Your task to perform on an android device: change the clock display to show seconds Image 0: 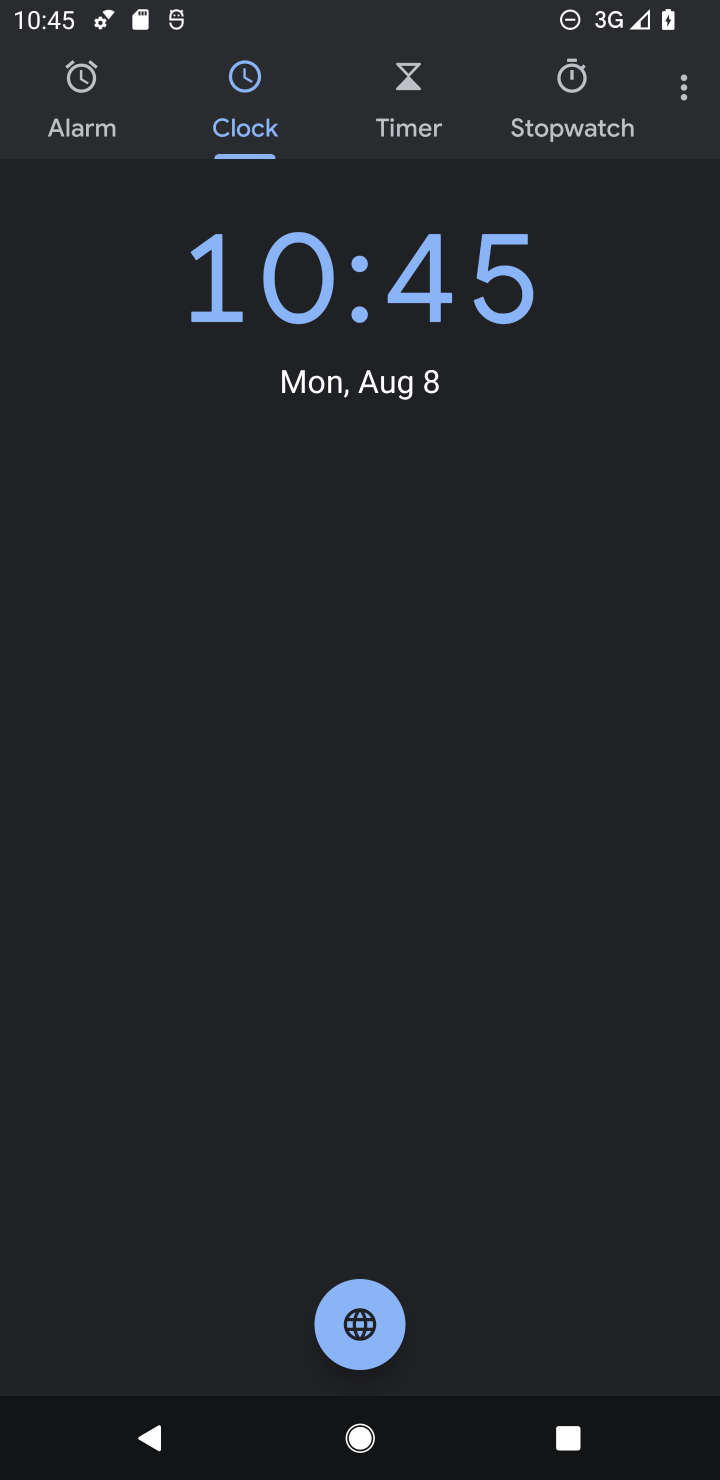
Step 0: click (678, 96)
Your task to perform on an android device: change the clock display to show seconds Image 1: 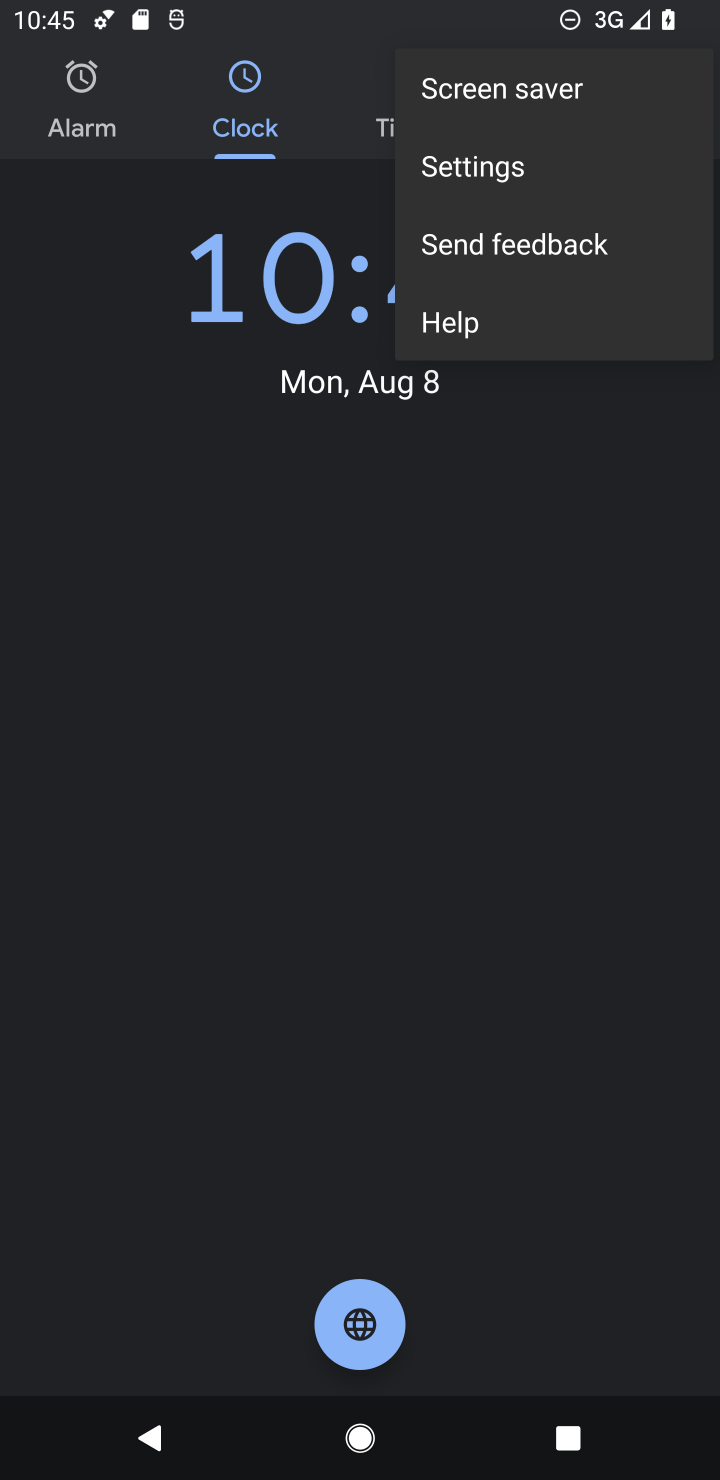
Step 1: click (485, 165)
Your task to perform on an android device: change the clock display to show seconds Image 2: 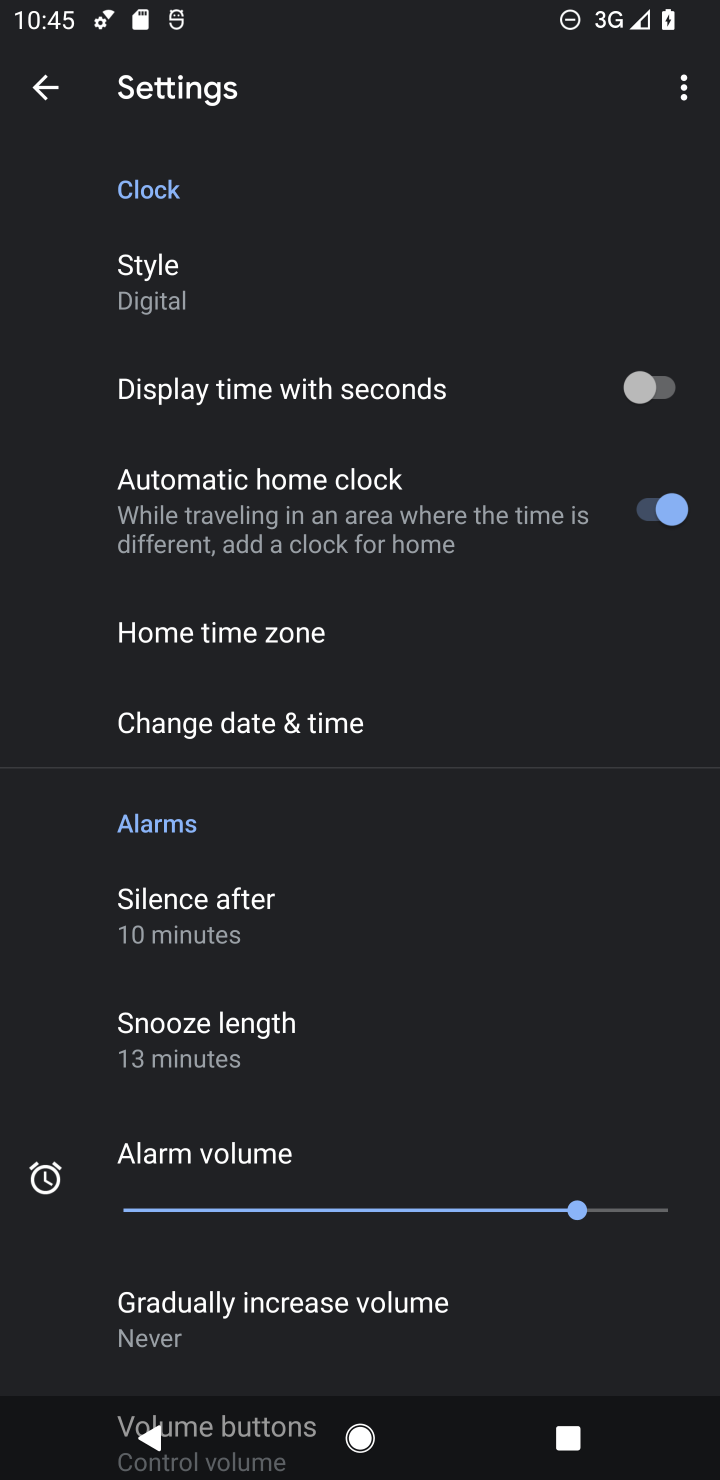
Step 2: click (656, 381)
Your task to perform on an android device: change the clock display to show seconds Image 3: 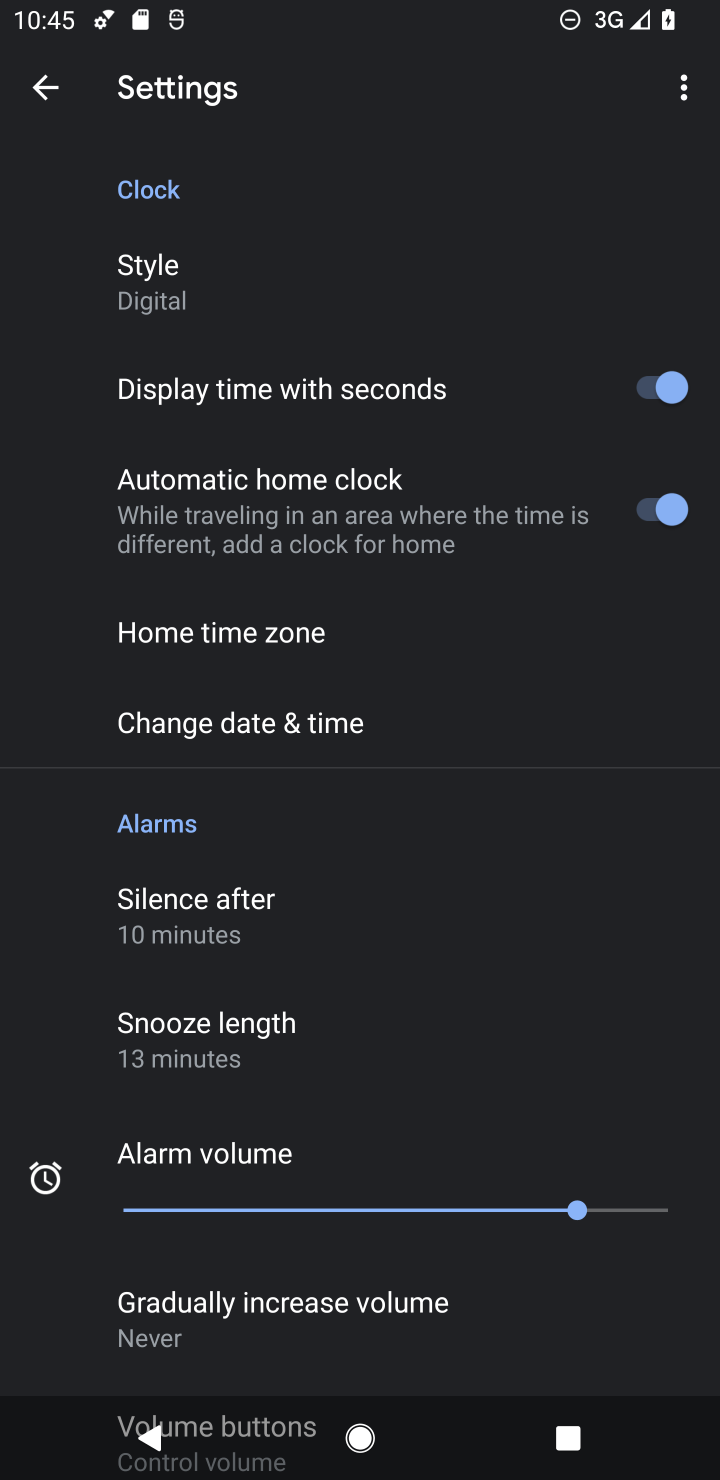
Step 3: task complete